Your task to perform on an android device: Go to location settings Image 0: 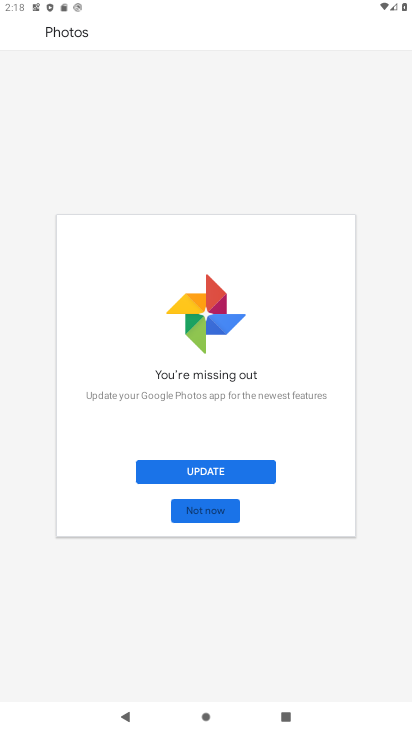
Step 0: press home button
Your task to perform on an android device: Go to location settings Image 1: 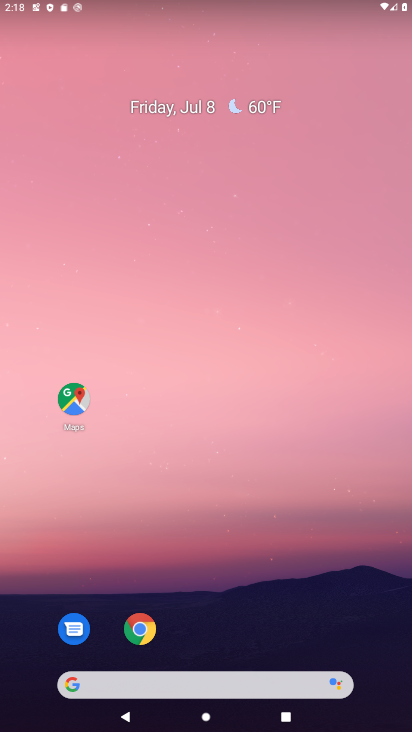
Step 1: drag from (214, 624) to (207, 284)
Your task to perform on an android device: Go to location settings Image 2: 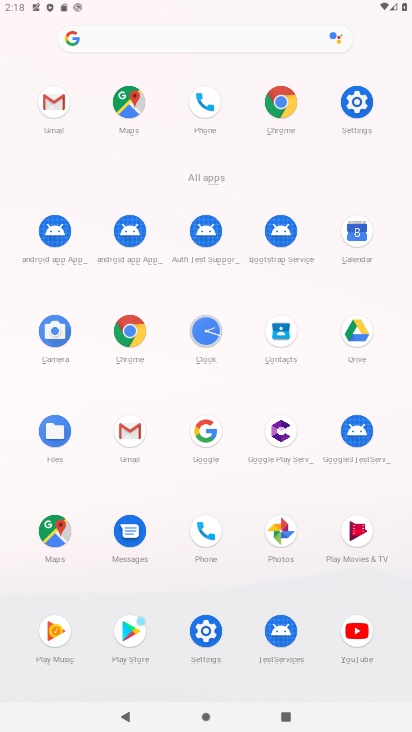
Step 2: click (343, 97)
Your task to perform on an android device: Go to location settings Image 3: 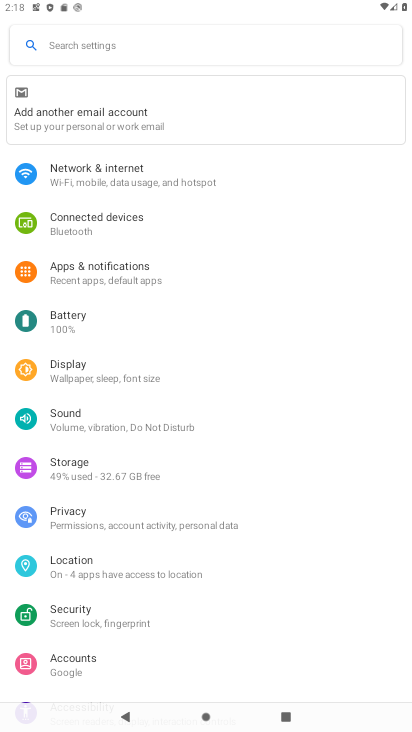
Step 3: click (119, 569)
Your task to perform on an android device: Go to location settings Image 4: 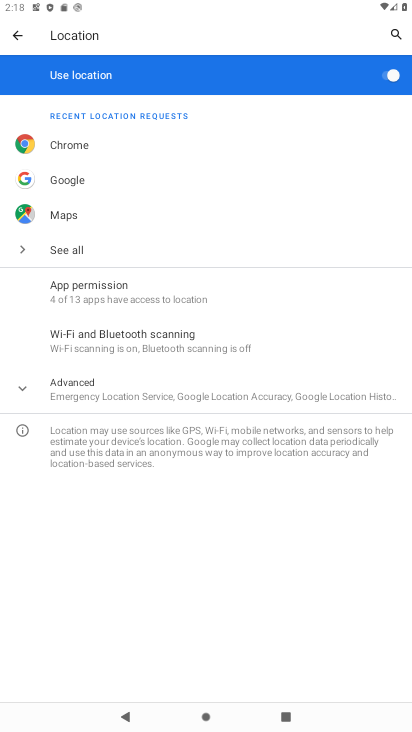
Step 4: task complete